Your task to perform on an android device: What's the weather? Image 0: 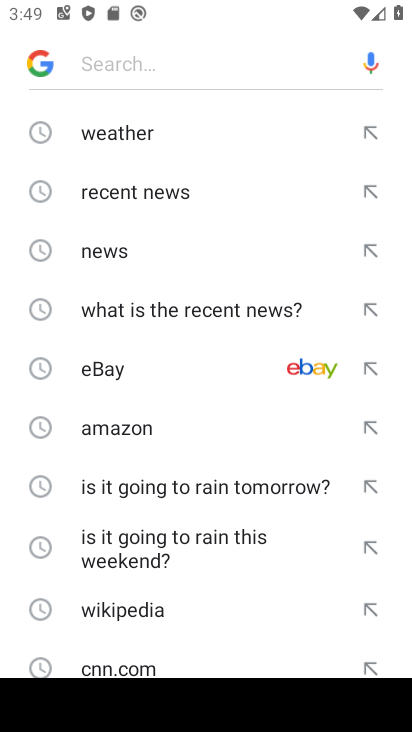
Step 0: press home button
Your task to perform on an android device: What's the weather? Image 1: 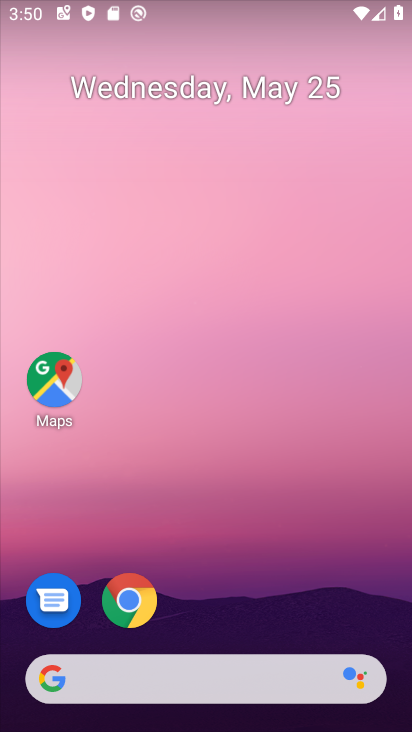
Step 1: click (183, 678)
Your task to perform on an android device: What's the weather? Image 2: 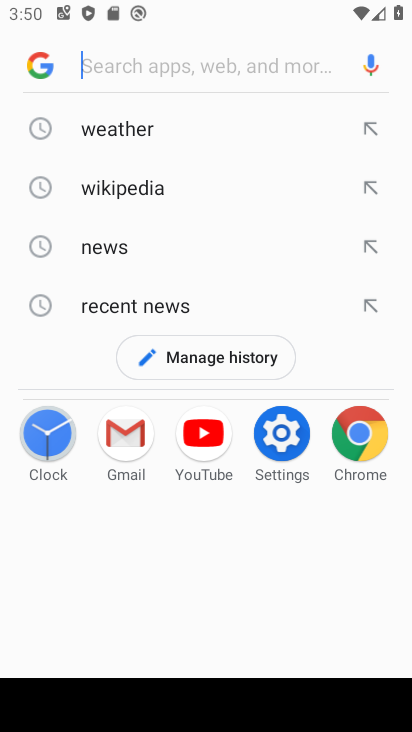
Step 2: click (125, 133)
Your task to perform on an android device: What's the weather? Image 3: 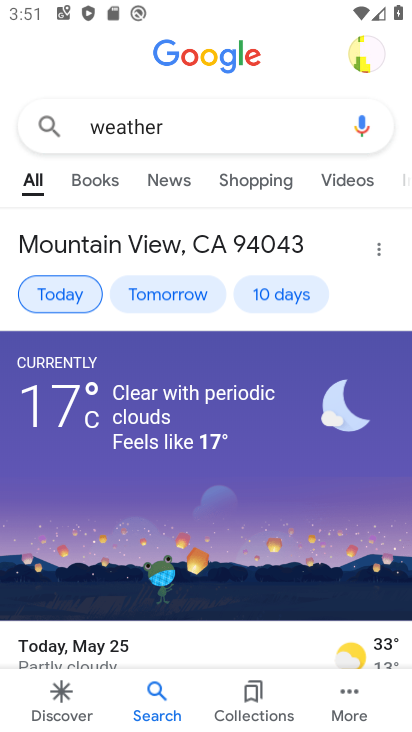
Step 3: task complete